Your task to perform on an android device: check data usage Image 0: 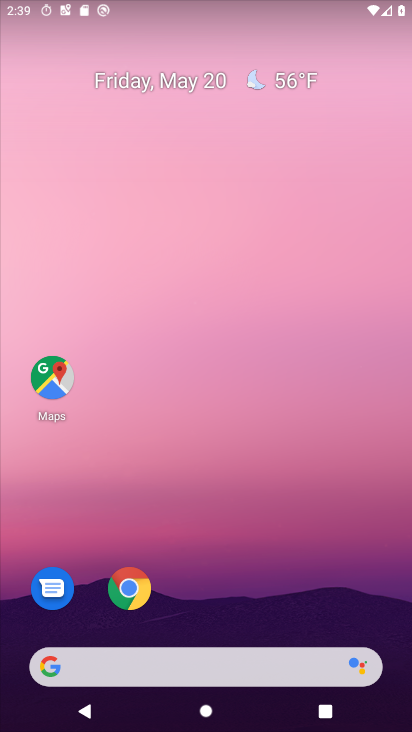
Step 0: drag from (20, 630) to (295, 219)
Your task to perform on an android device: check data usage Image 1: 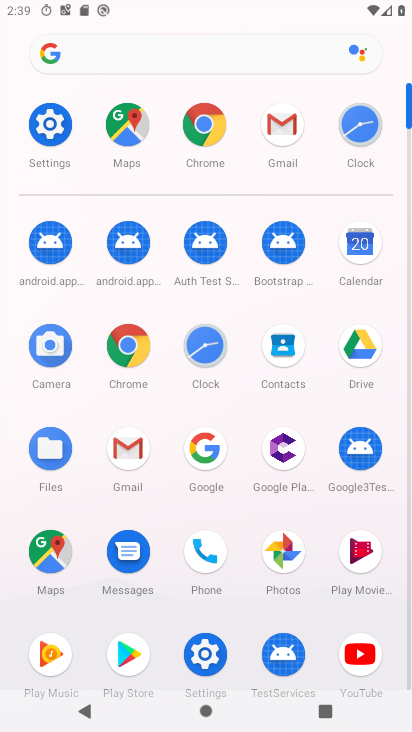
Step 1: click (213, 654)
Your task to perform on an android device: check data usage Image 2: 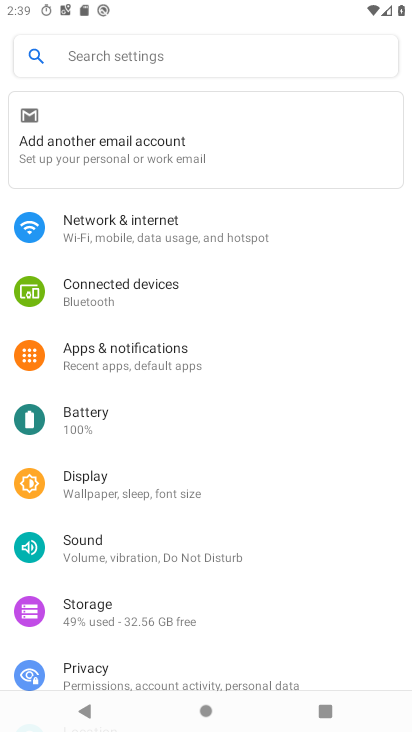
Step 2: click (78, 218)
Your task to perform on an android device: check data usage Image 3: 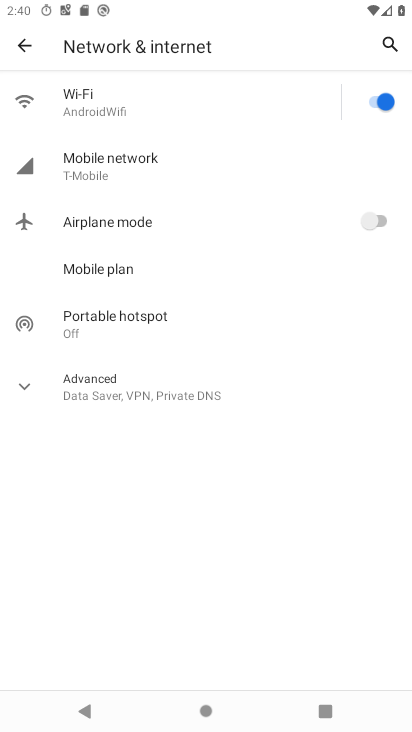
Step 3: click (132, 164)
Your task to perform on an android device: check data usage Image 4: 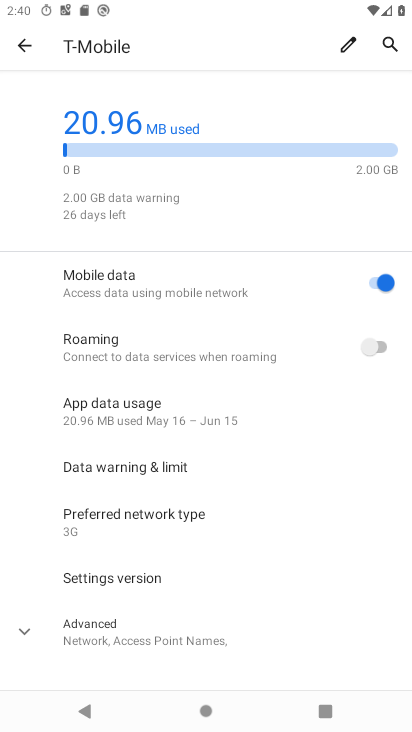
Step 4: click (157, 169)
Your task to perform on an android device: check data usage Image 5: 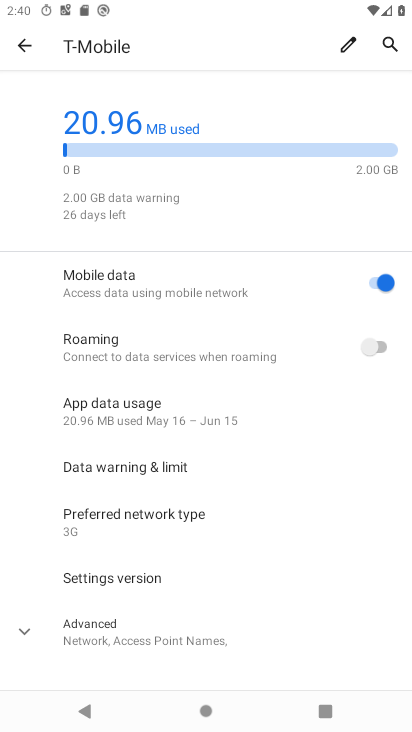
Step 5: task complete